Your task to perform on an android device: set the stopwatch Image 0: 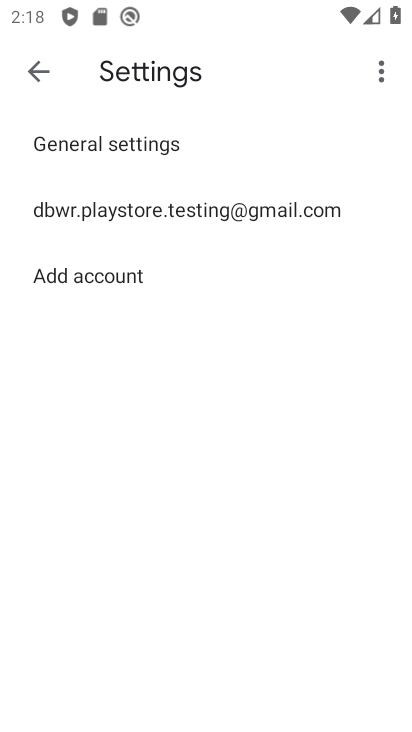
Step 0: press home button
Your task to perform on an android device: set the stopwatch Image 1: 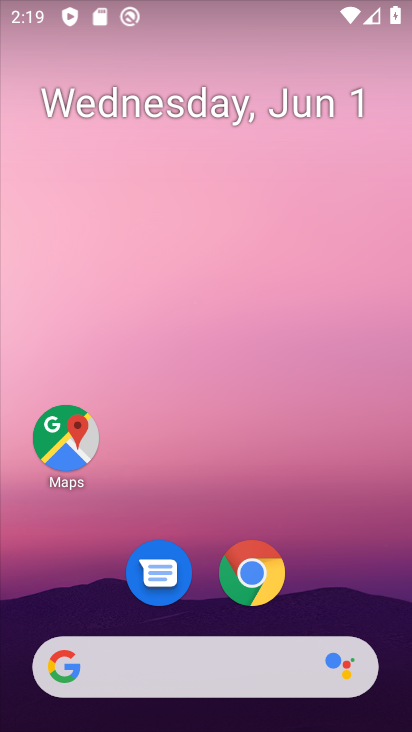
Step 1: drag from (209, 604) to (221, 37)
Your task to perform on an android device: set the stopwatch Image 2: 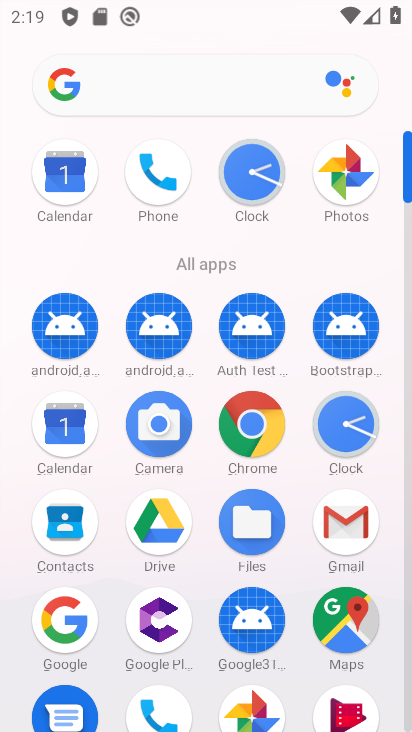
Step 2: click (252, 193)
Your task to perform on an android device: set the stopwatch Image 3: 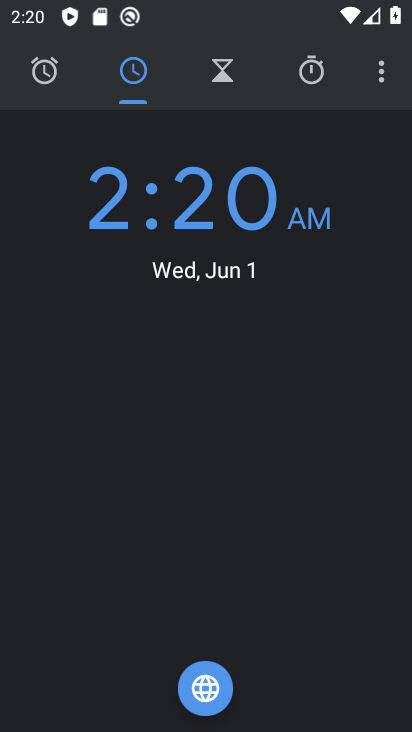
Step 3: click (317, 65)
Your task to perform on an android device: set the stopwatch Image 4: 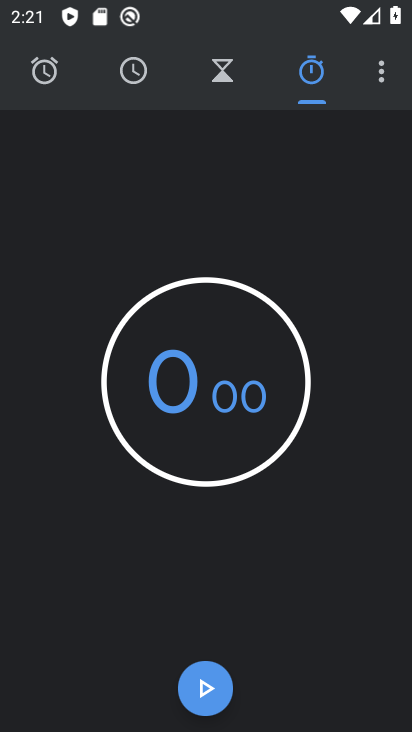
Step 4: click (212, 677)
Your task to perform on an android device: set the stopwatch Image 5: 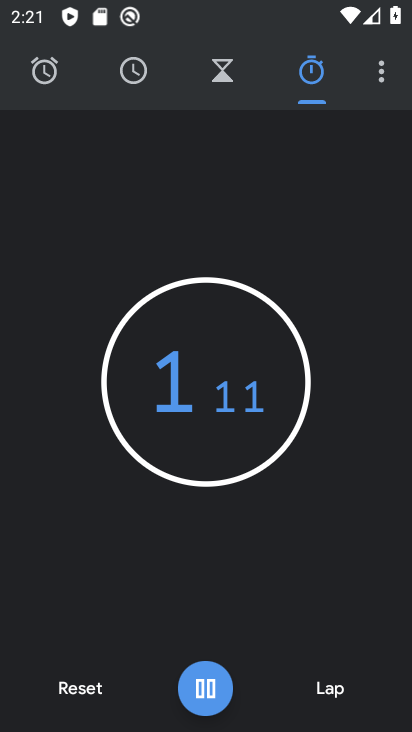
Step 5: task complete